Your task to perform on an android device: turn on location history Image 0: 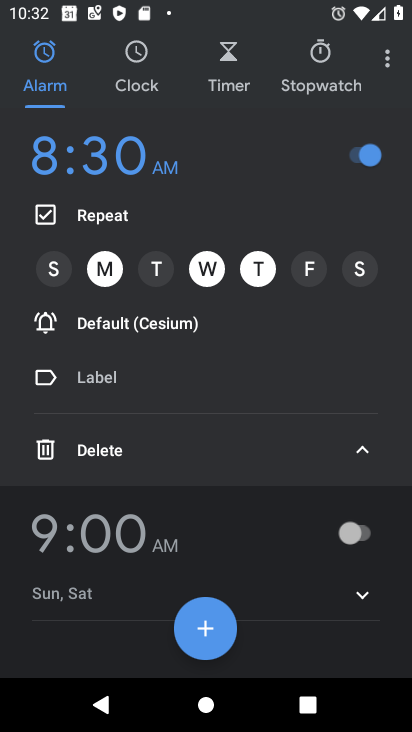
Step 0: press home button
Your task to perform on an android device: turn on location history Image 1: 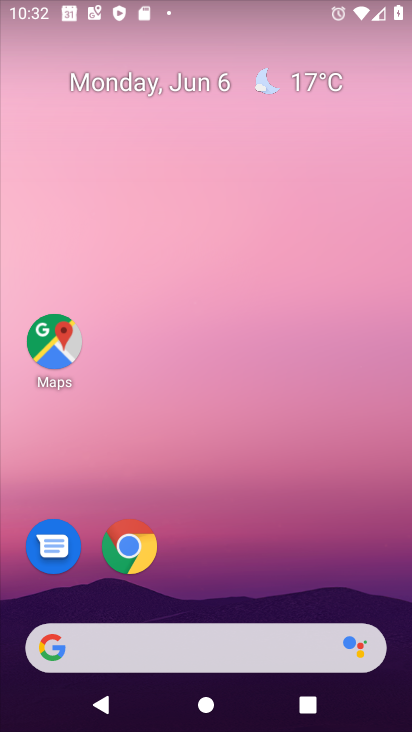
Step 1: drag from (187, 547) to (199, 13)
Your task to perform on an android device: turn on location history Image 2: 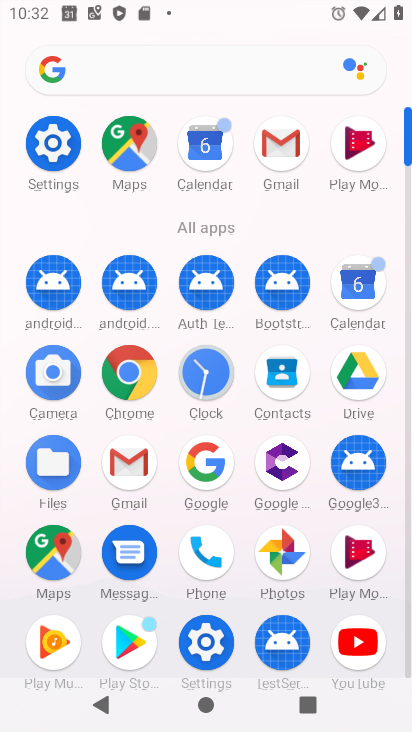
Step 2: click (60, 171)
Your task to perform on an android device: turn on location history Image 3: 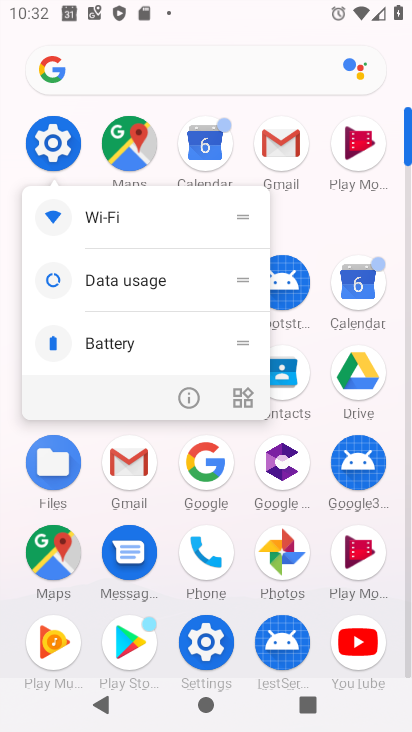
Step 3: click (55, 152)
Your task to perform on an android device: turn on location history Image 4: 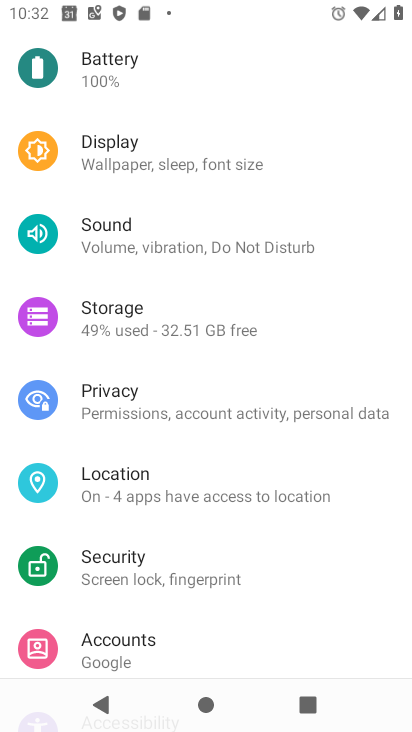
Step 4: click (160, 482)
Your task to perform on an android device: turn on location history Image 5: 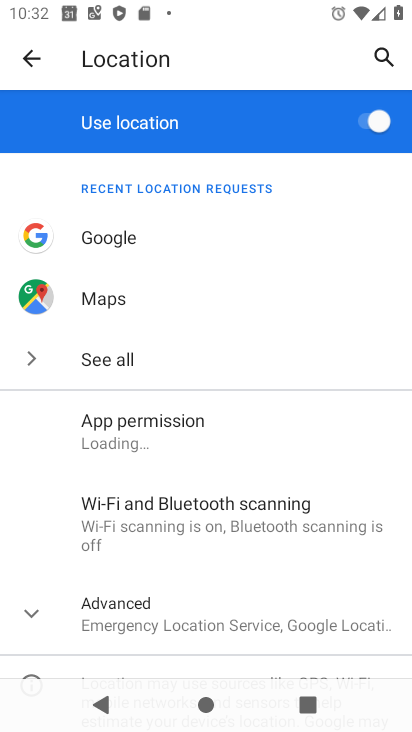
Step 5: drag from (187, 615) to (212, 452)
Your task to perform on an android device: turn on location history Image 6: 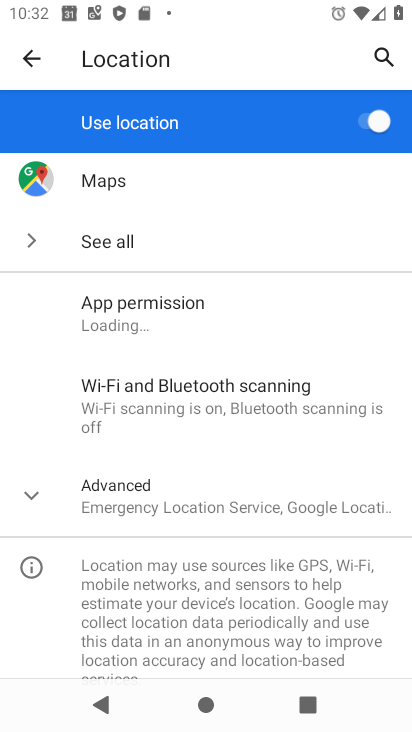
Step 6: click (123, 499)
Your task to perform on an android device: turn on location history Image 7: 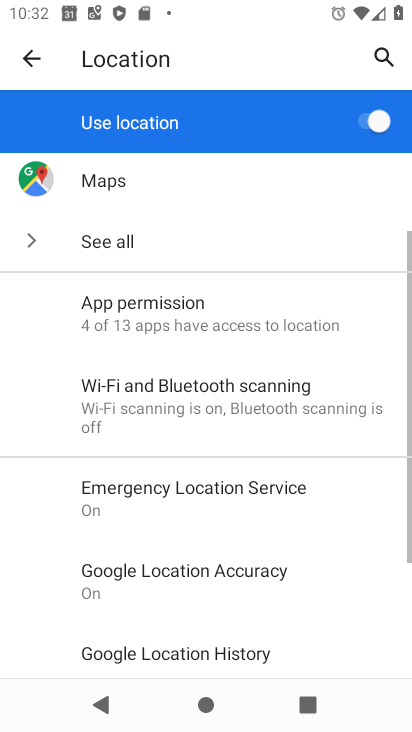
Step 7: drag from (197, 611) to (229, 436)
Your task to perform on an android device: turn on location history Image 8: 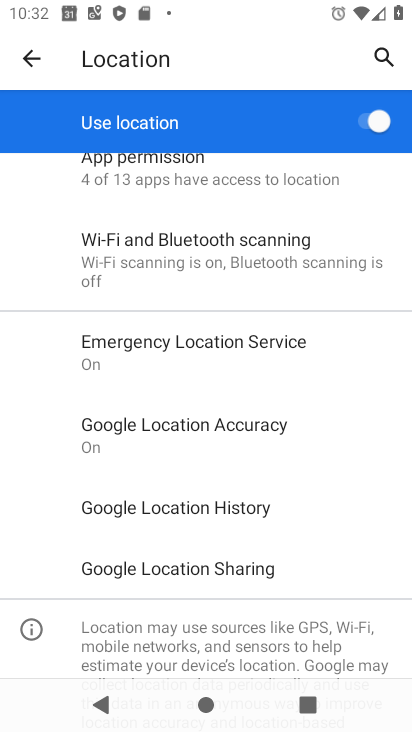
Step 8: click (200, 511)
Your task to perform on an android device: turn on location history Image 9: 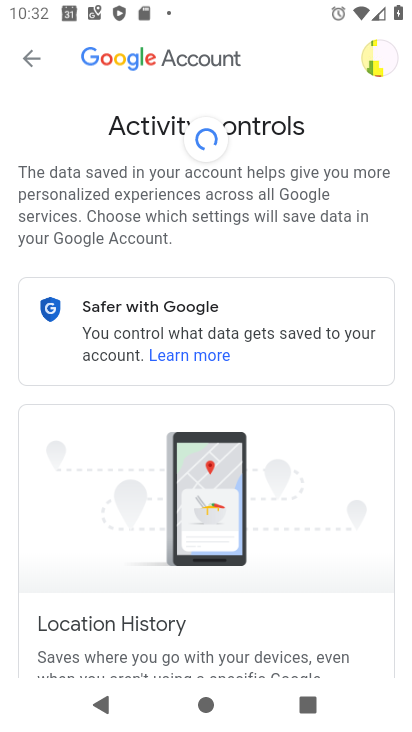
Step 9: task complete